Your task to perform on an android device: turn notification dots off Image 0: 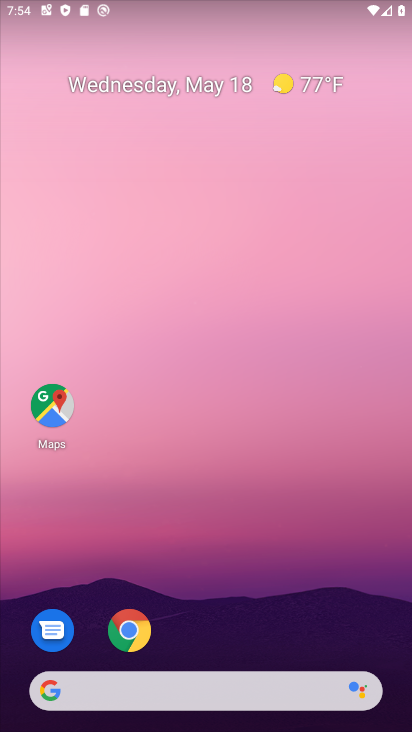
Step 0: drag from (277, 602) to (306, 163)
Your task to perform on an android device: turn notification dots off Image 1: 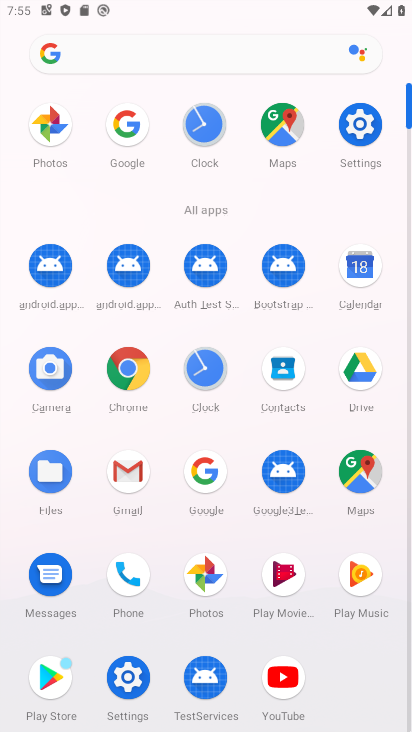
Step 1: click (366, 129)
Your task to perform on an android device: turn notification dots off Image 2: 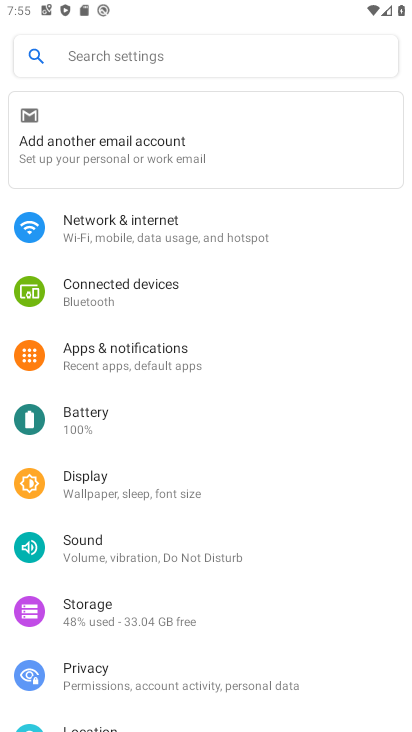
Step 2: click (232, 357)
Your task to perform on an android device: turn notification dots off Image 3: 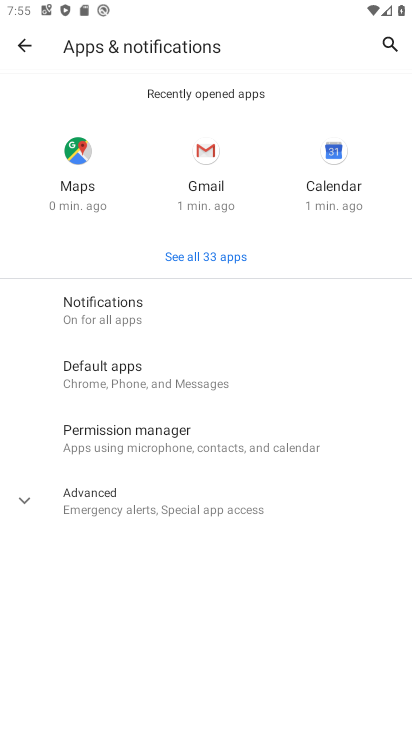
Step 3: click (207, 310)
Your task to perform on an android device: turn notification dots off Image 4: 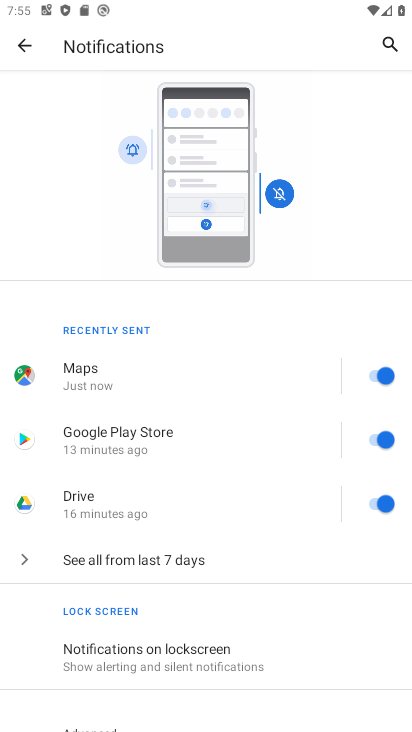
Step 4: click (231, 656)
Your task to perform on an android device: turn notification dots off Image 5: 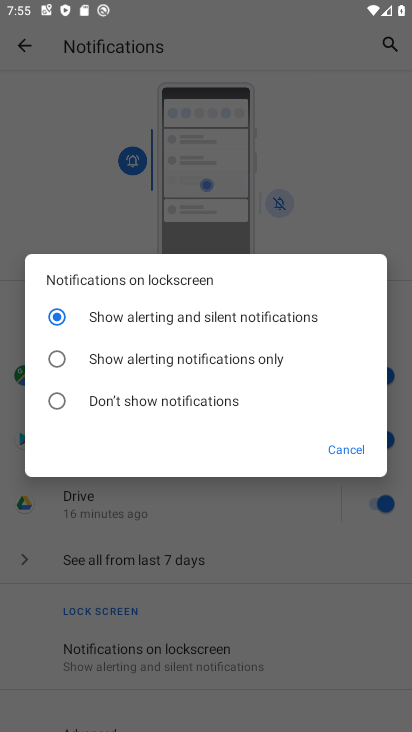
Step 5: press back button
Your task to perform on an android device: turn notification dots off Image 6: 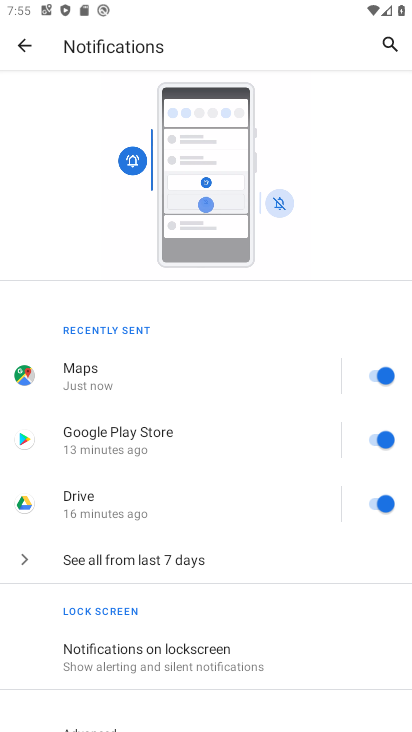
Step 6: drag from (205, 620) to (269, 326)
Your task to perform on an android device: turn notification dots off Image 7: 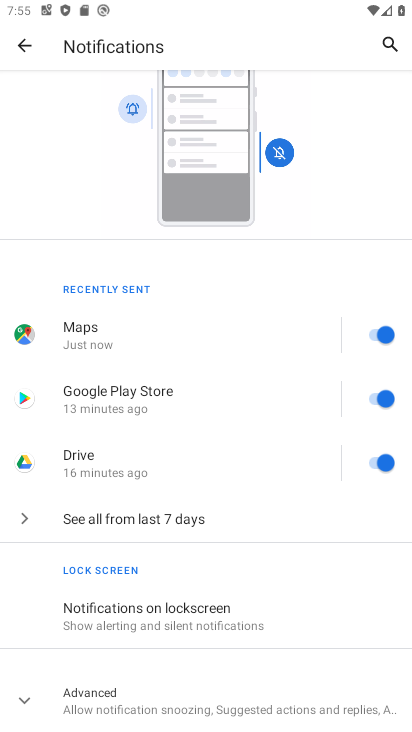
Step 7: click (21, 695)
Your task to perform on an android device: turn notification dots off Image 8: 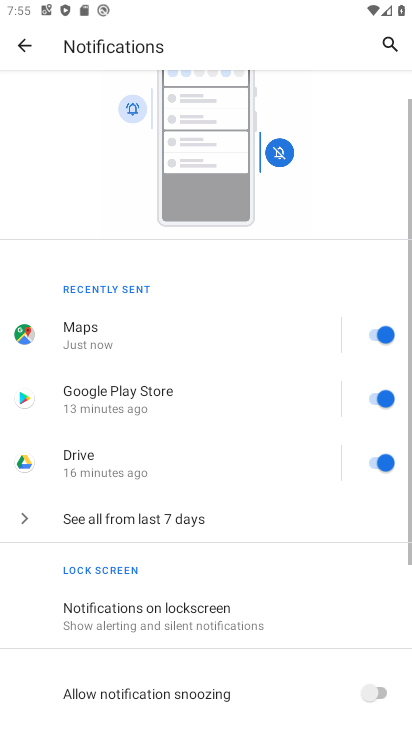
Step 8: drag from (237, 655) to (280, 344)
Your task to perform on an android device: turn notification dots off Image 9: 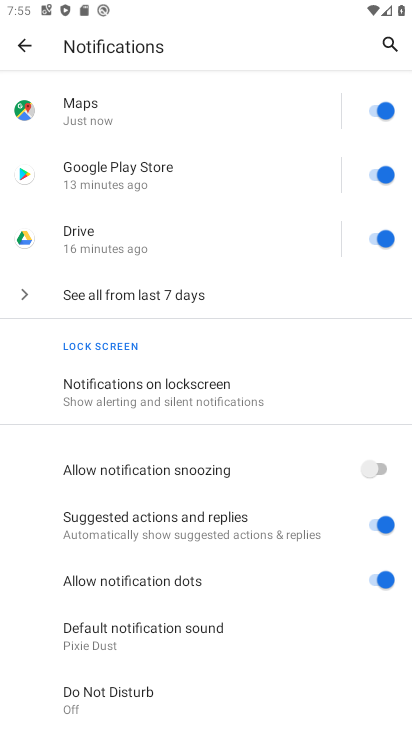
Step 9: click (394, 580)
Your task to perform on an android device: turn notification dots off Image 10: 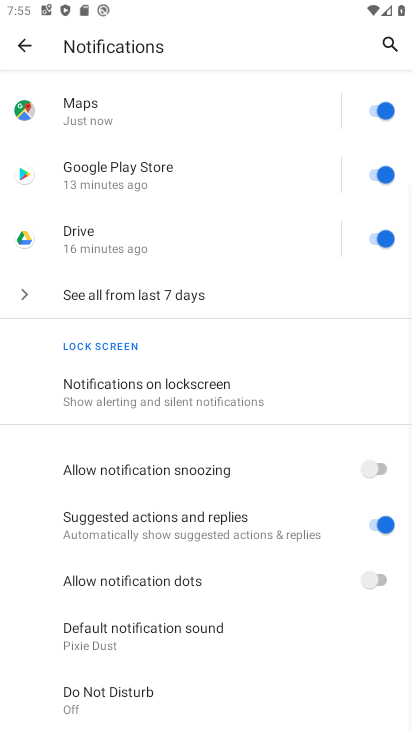
Step 10: task complete